Your task to perform on an android device: Go to Yahoo.com Image 0: 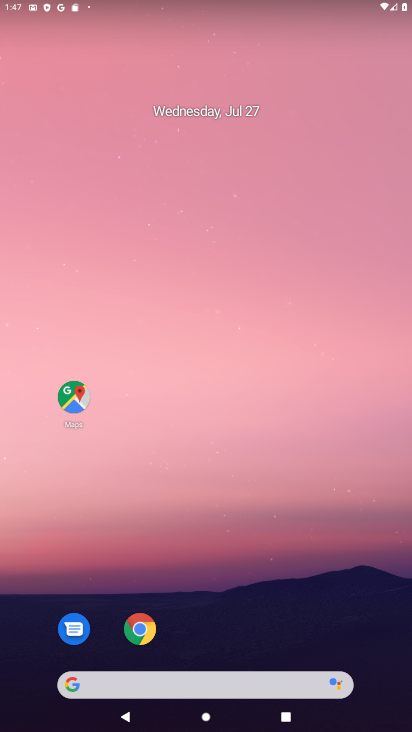
Step 0: drag from (306, 653) to (224, 193)
Your task to perform on an android device: Go to Yahoo.com Image 1: 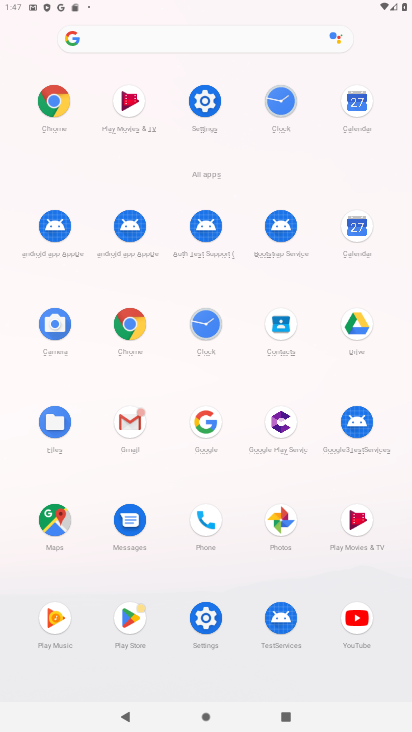
Step 1: click (155, 41)
Your task to perform on an android device: Go to Yahoo.com Image 2: 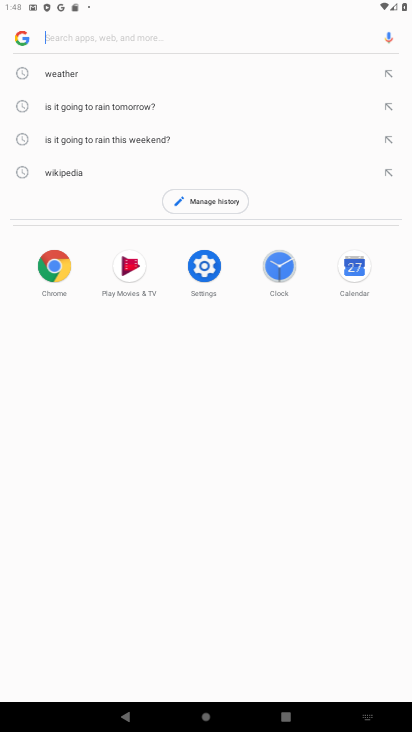
Step 2: type "yahoo.com"
Your task to perform on an android device: Go to Yahoo.com Image 3: 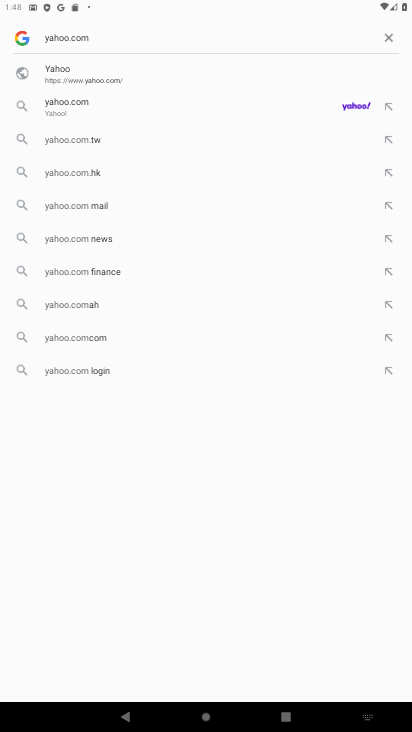
Step 3: click (107, 63)
Your task to perform on an android device: Go to Yahoo.com Image 4: 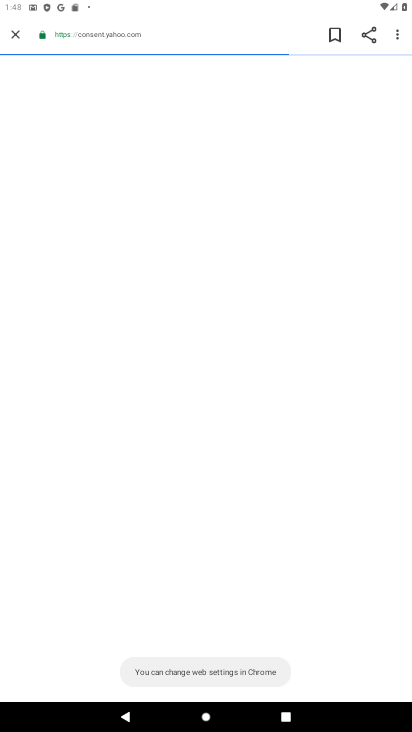
Step 4: task complete